Your task to perform on an android device: toggle notifications settings in the gmail app Image 0: 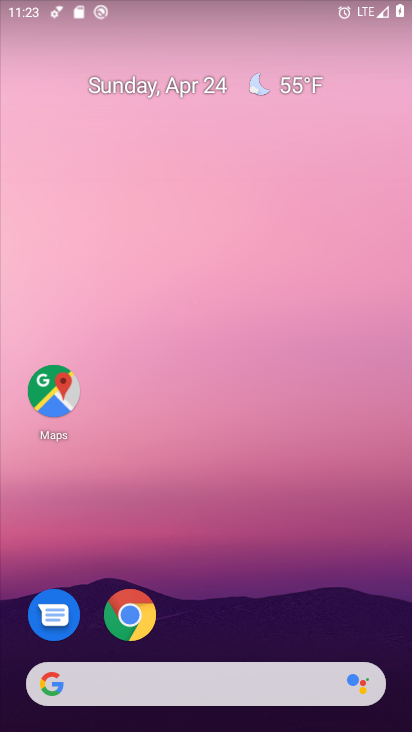
Step 0: press home button
Your task to perform on an android device: toggle notifications settings in the gmail app Image 1: 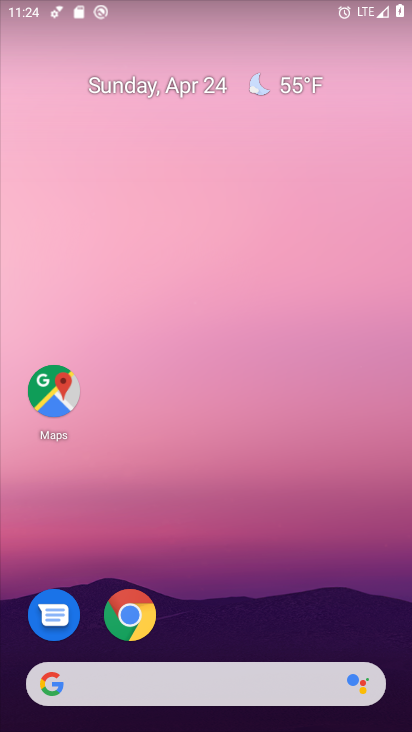
Step 1: drag from (198, 617) to (153, 61)
Your task to perform on an android device: toggle notifications settings in the gmail app Image 2: 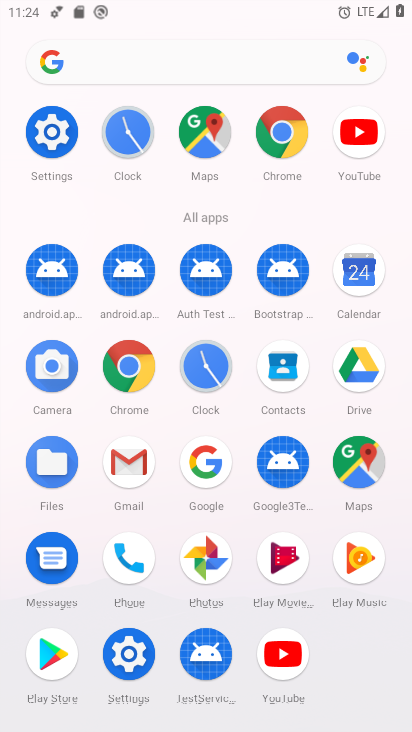
Step 2: click (124, 455)
Your task to perform on an android device: toggle notifications settings in the gmail app Image 3: 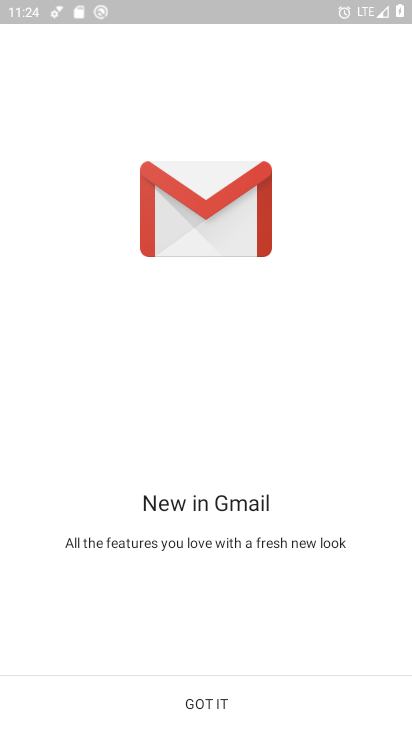
Step 3: click (210, 709)
Your task to perform on an android device: toggle notifications settings in the gmail app Image 4: 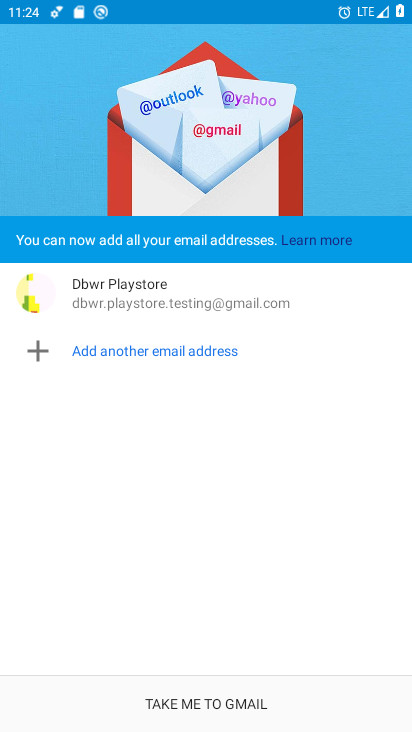
Step 4: click (198, 712)
Your task to perform on an android device: toggle notifications settings in the gmail app Image 5: 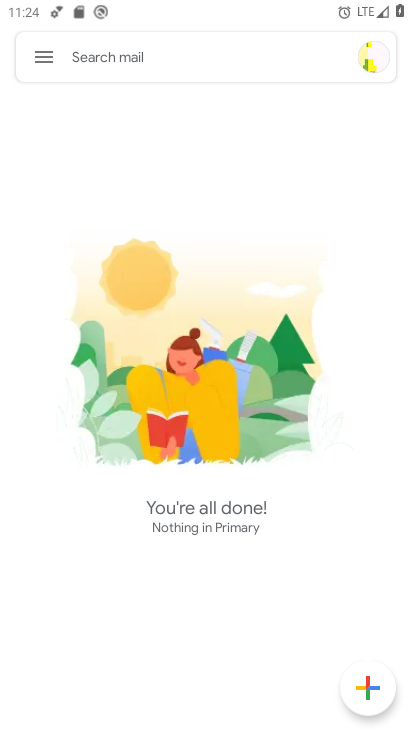
Step 5: click (37, 55)
Your task to perform on an android device: toggle notifications settings in the gmail app Image 6: 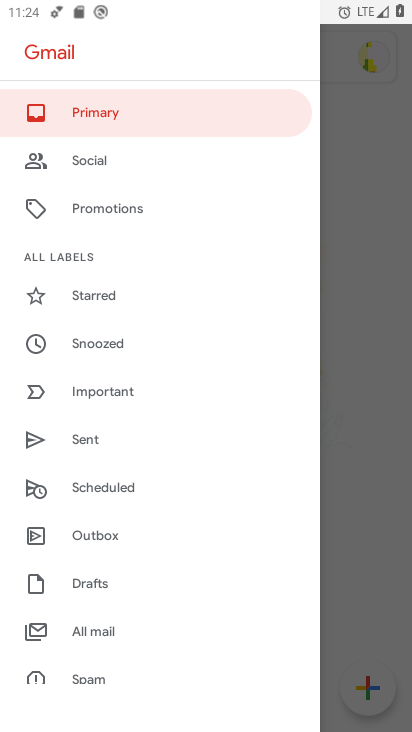
Step 6: drag from (150, 647) to (143, 124)
Your task to perform on an android device: toggle notifications settings in the gmail app Image 7: 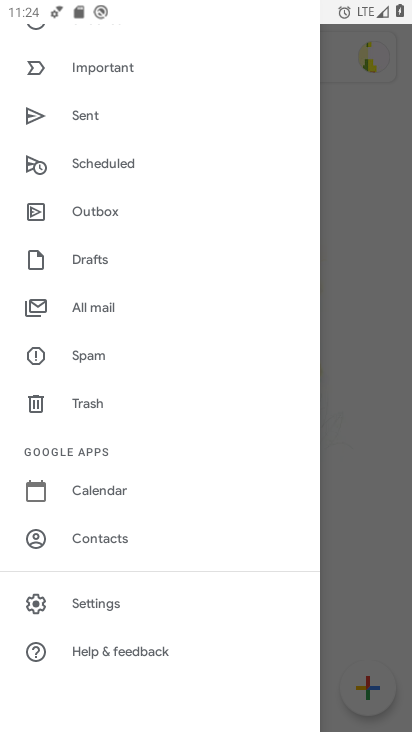
Step 7: click (126, 602)
Your task to perform on an android device: toggle notifications settings in the gmail app Image 8: 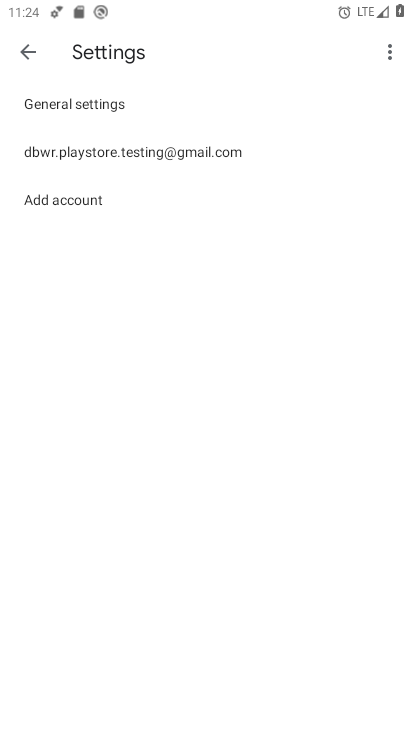
Step 8: click (140, 101)
Your task to perform on an android device: toggle notifications settings in the gmail app Image 9: 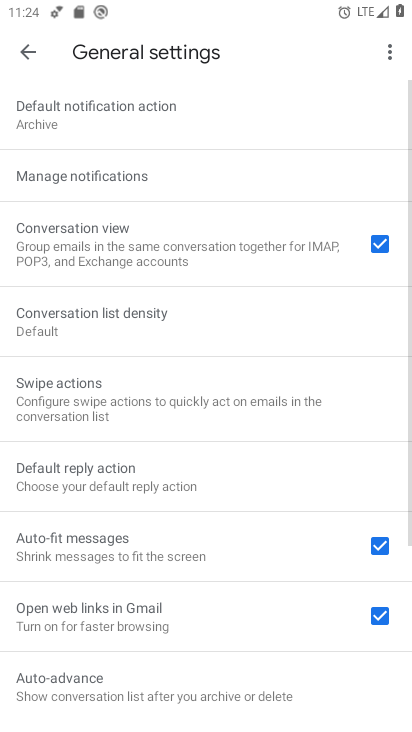
Step 9: click (117, 180)
Your task to perform on an android device: toggle notifications settings in the gmail app Image 10: 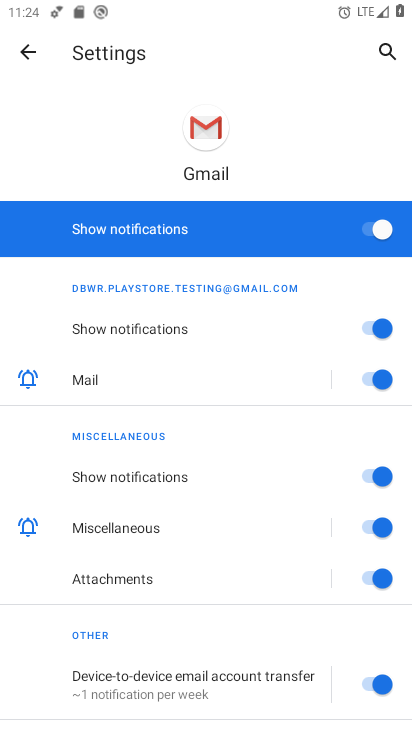
Step 10: click (366, 229)
Your task to perform on an android device: toggle notifications settings in the gmail app Image 11: 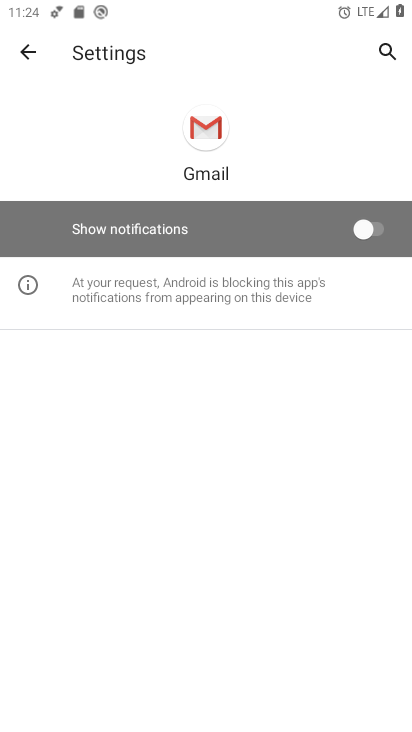
Step 11: task complete